Your task to perform on an android device: turn on showing notifications on the lock screen Image 0: 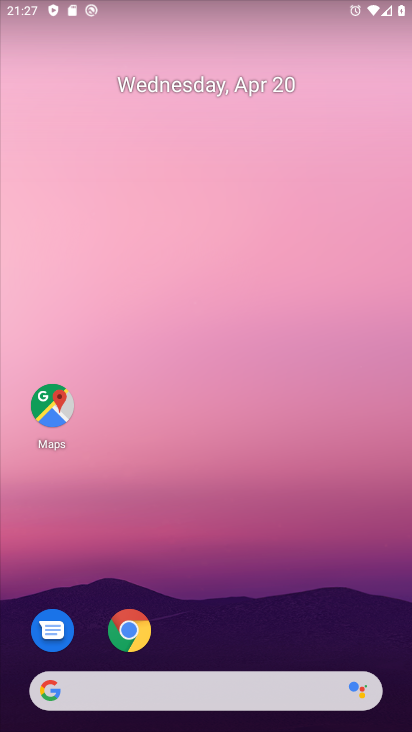
Step 0: drag from (254, 510) to (213, 148)
Your task to perform on an android device: turn on showing notifications on the lock screen Image 1: 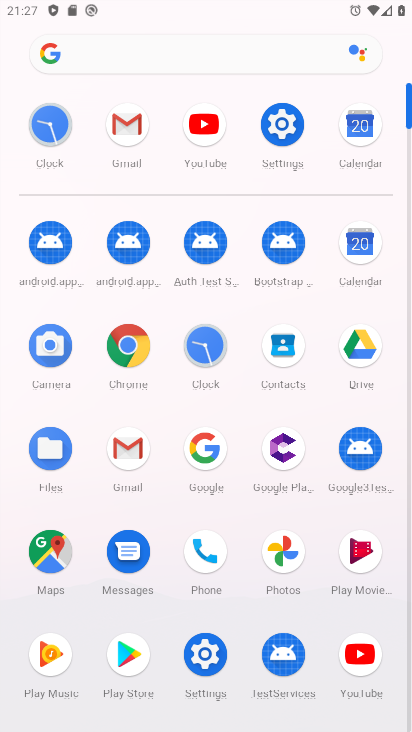
Step 1: click (282, 132)
Your task to perform on an android device: turn on showing notifications on the lock screen Image 2: 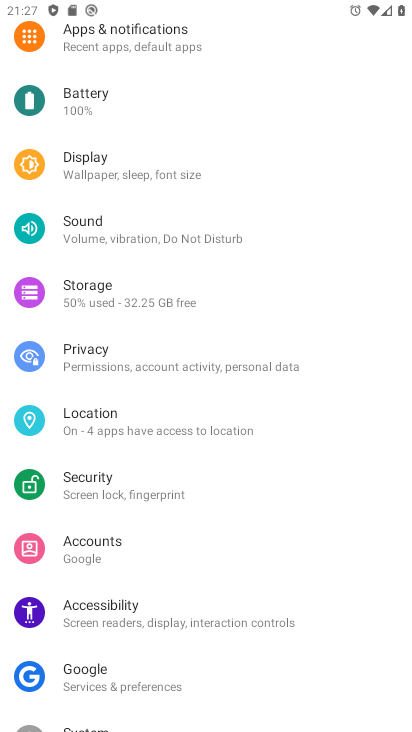
Step 2: click (115, 30)
Your task to perform on an android device: turn on showing notifications on the lock screen Image 3: 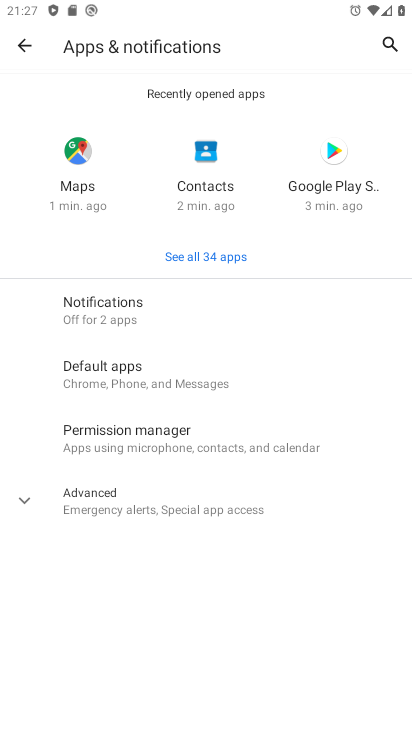
Step 3: click (179, 313)
Your task to perform on an android device: turn on showing notifications on the lock screen Image 4: 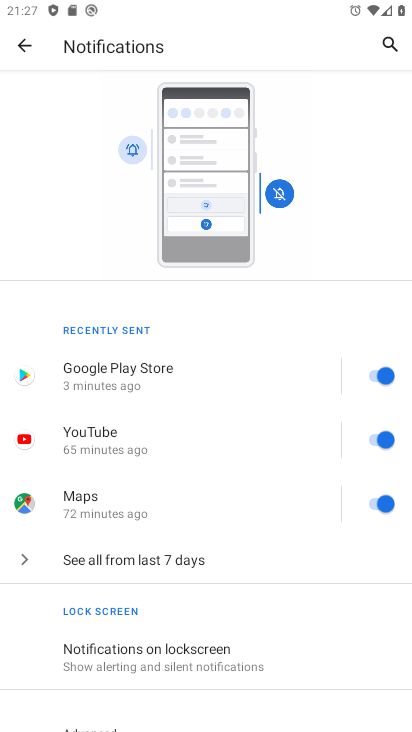
Step 4: click (141, 665)
Your task to perform on an android device: turn on showing notifications on the lock screen Image 5: 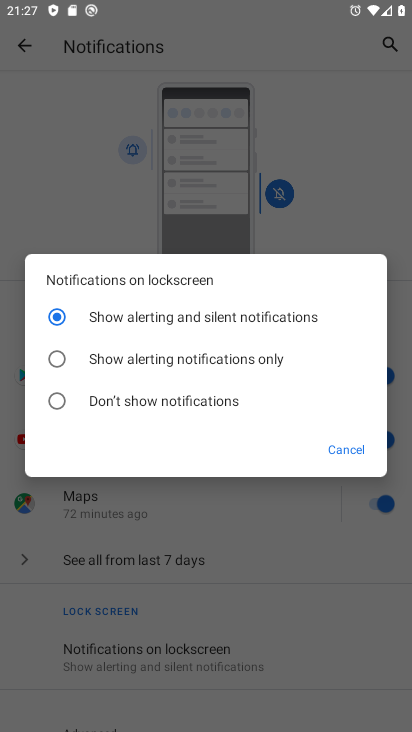
Step 5: click (131, 323)
Your task to perform on an android device: turn on showing notifications on the lock screen Image 6: 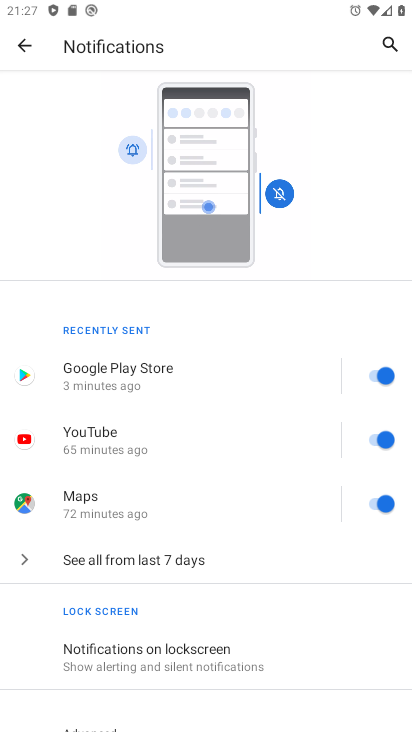
Step 6: task complete